Your task to perform on an android device: Open calendar and show me the fourth week of next month Image 0: 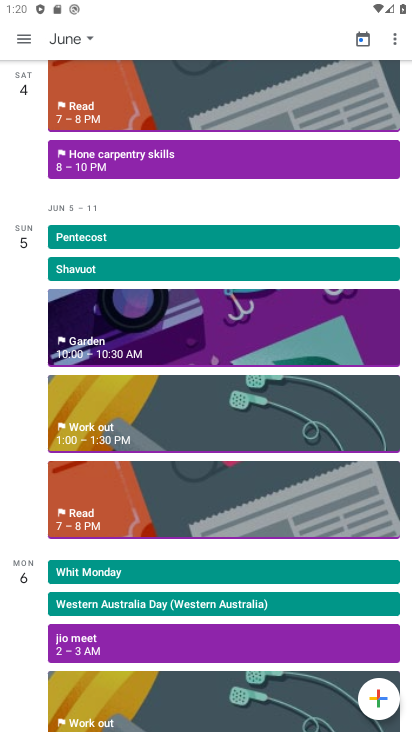
Step 0: click (26, 41)
Your task to perform on an android device: Open calendar and show me the fourth week of next month Image 1: 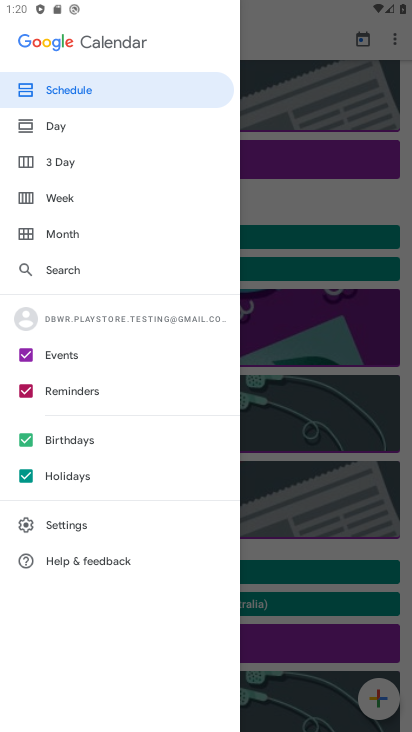
Step 1: click (58, 204)
Your task to perform on an android device: Open calendar and show me the fourth week of next month Image 2: 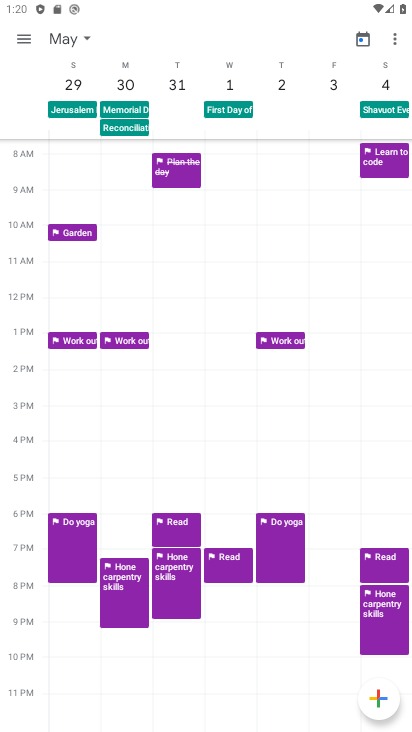
Step 2: click (69, 38)
Your task to perform on an android device: Open calendar and show me the fourth week of next month Image 3: 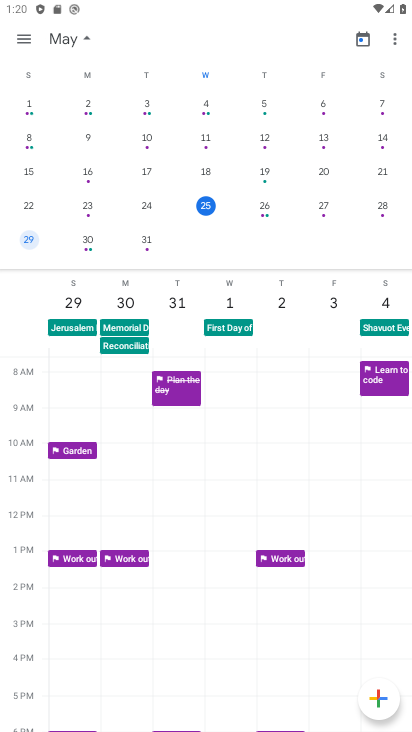
Step 3: drag from (332, 170) to (15, 177)
Your task to perform on an android device: Open calendar and show me the fourth week of next month Image 4: 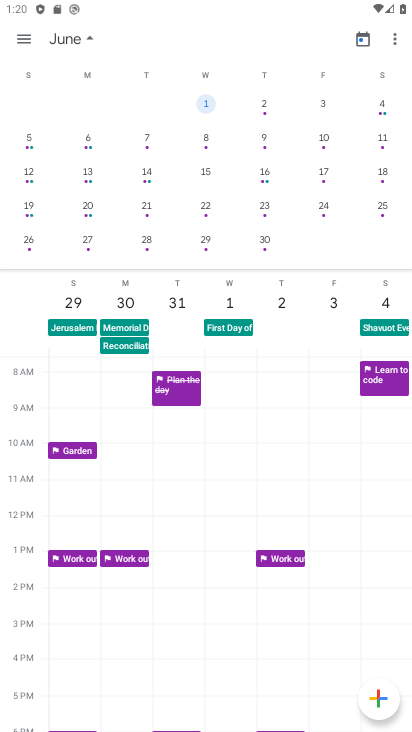
Step 4: click (33, 239)
Your task to perform on an android device: Open calendar and show me the fourth week of next month Image 5: 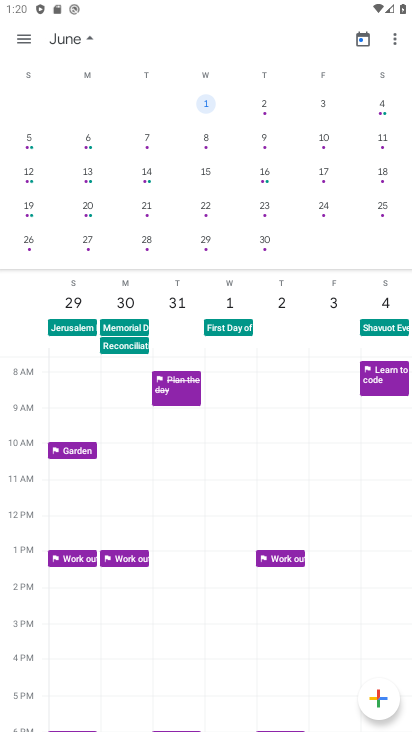
Step 5: click (33, 242)
Your task to perform on an android device: Open calendar and show me the fourth week of next month Image 6: 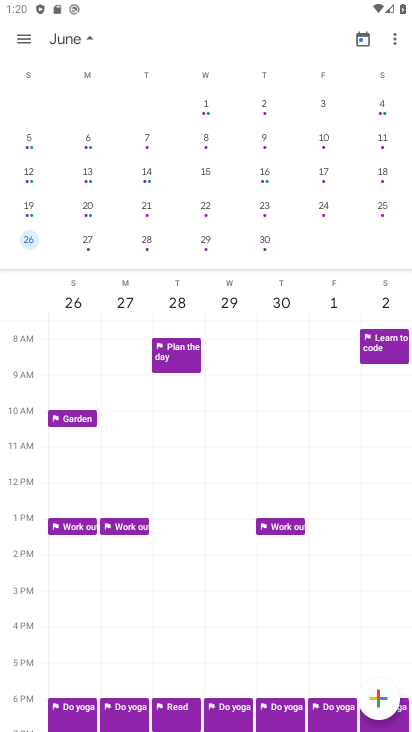
Step 6: task complete